Your task to perform on an android device: Open battery settings Image 0: 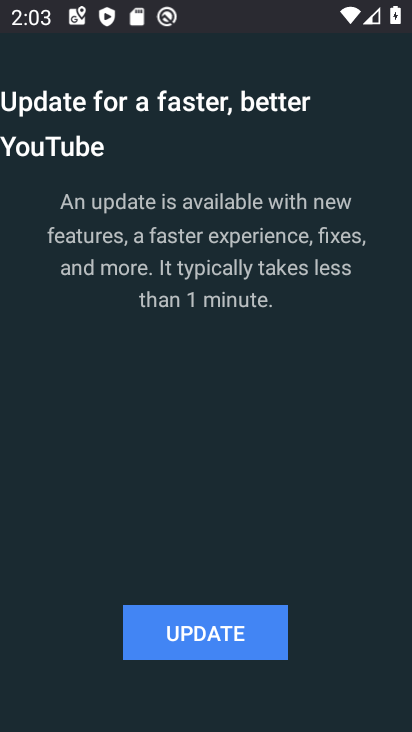
Step 0: press back button
Your task to perform on an android device: Open battery settings Image 1: 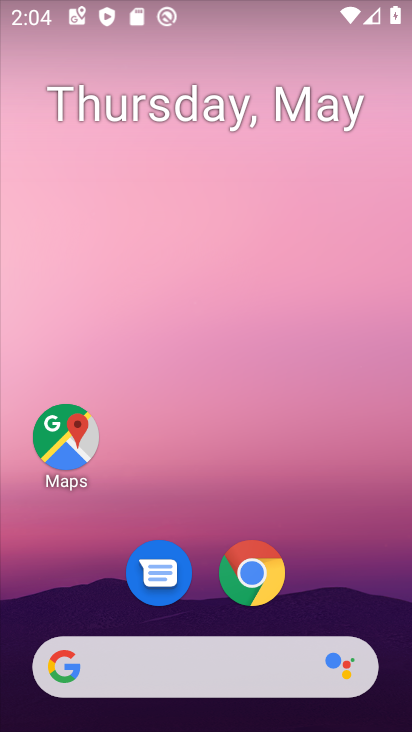
Step 1: drag from (320, 621) to (208, 237)
Your task to perform on an android device: Open battery settings Image 2: 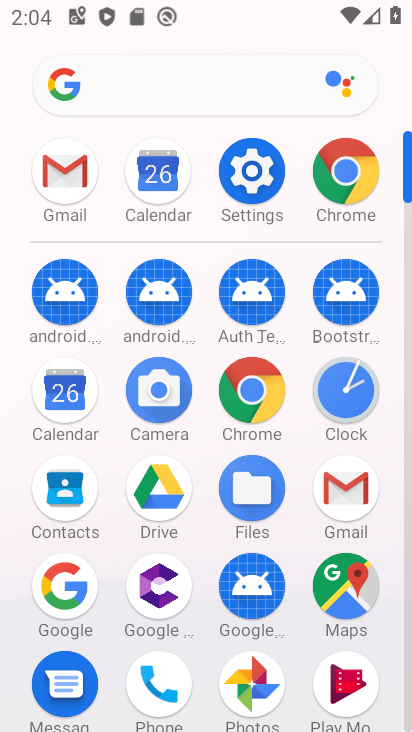
Step 2: click (248, 192)
Your task to perform on an android device: Open battery settings Image 3: 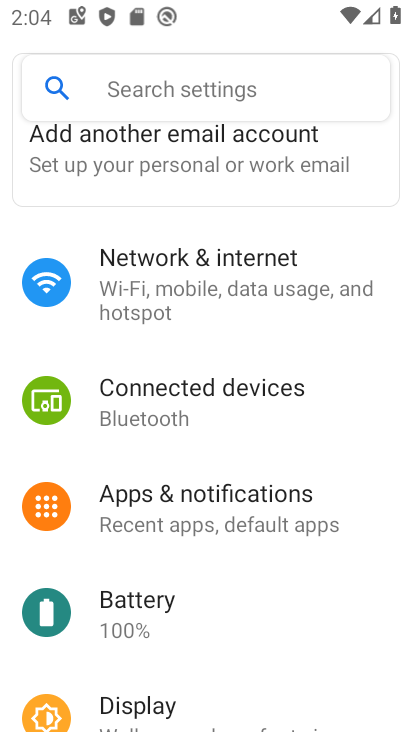
Step 3: click (167, 600)
Your task to perform on an android device: Open battery settings Image 4: 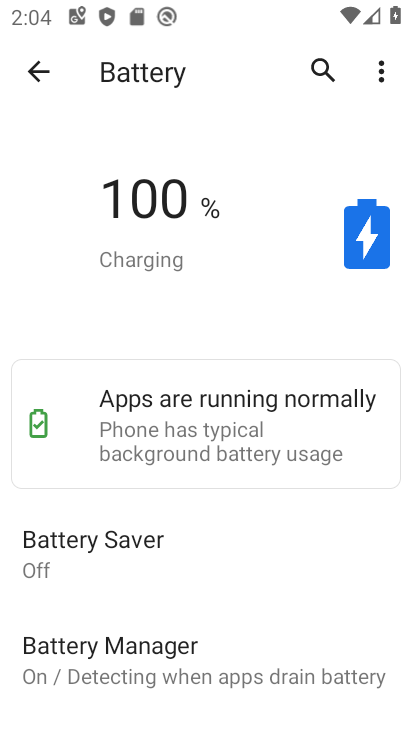
Step 4: task complete